Your task to perform on an android device: Search for Italian restaurants on Maps Image 0: 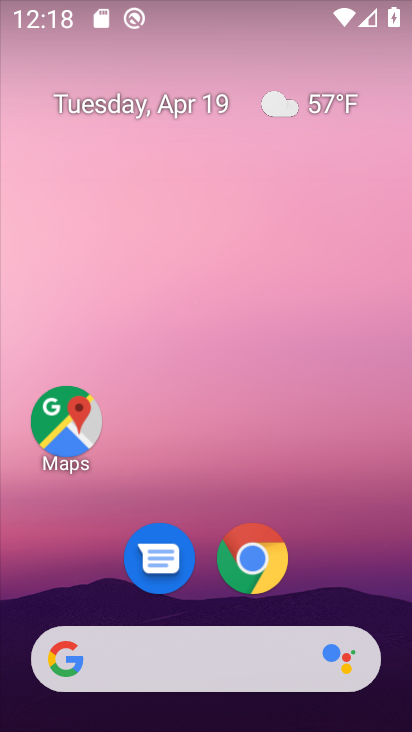
Step 0: click (69, 429)
Your task to perform on an android device: Search for Italian restaurants on Maps Image 1: 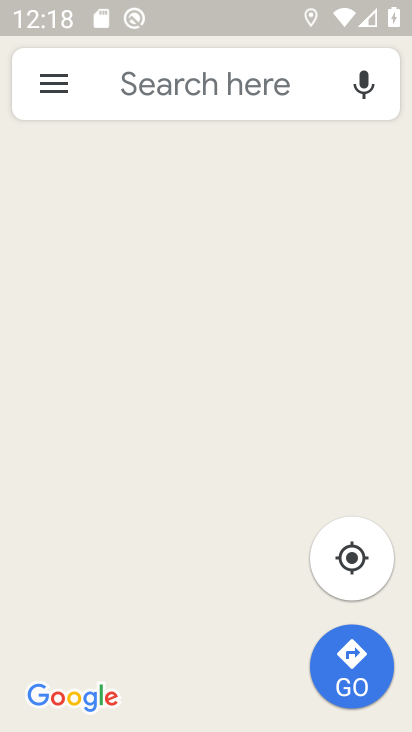
Step 1: click (207, 77)
Your task to perform on an android device: Search for Italian restaurants on Maps Image 2: 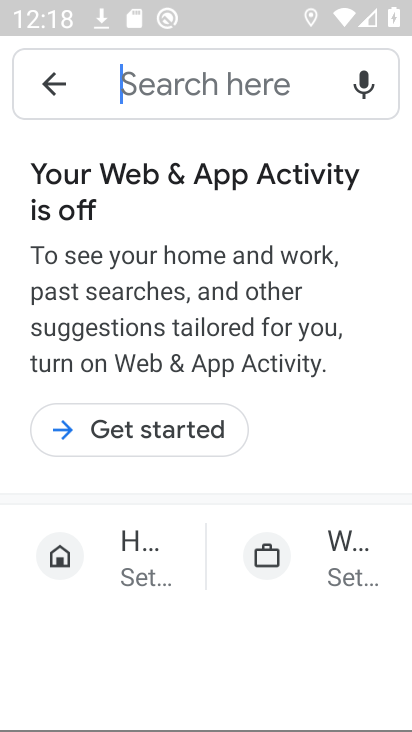
Step 2: click (224, 78)
Your task to perform on an android device: Search for Italian restaurants on Maps Image 3: 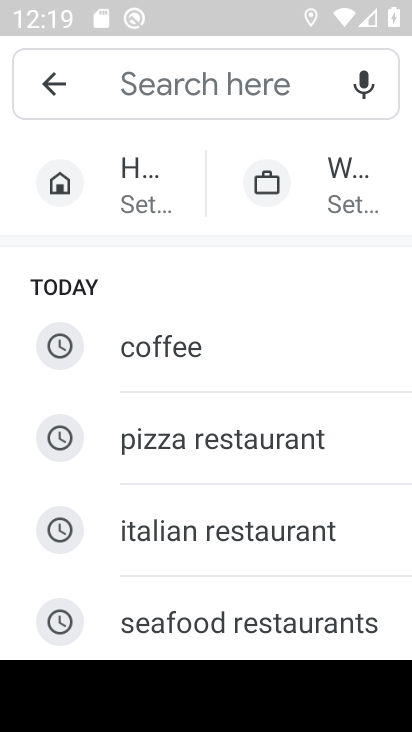
Step 3: click (200, 533)
Your task to perform on an android device: Search for Italian restaurants on Maps Image 4: 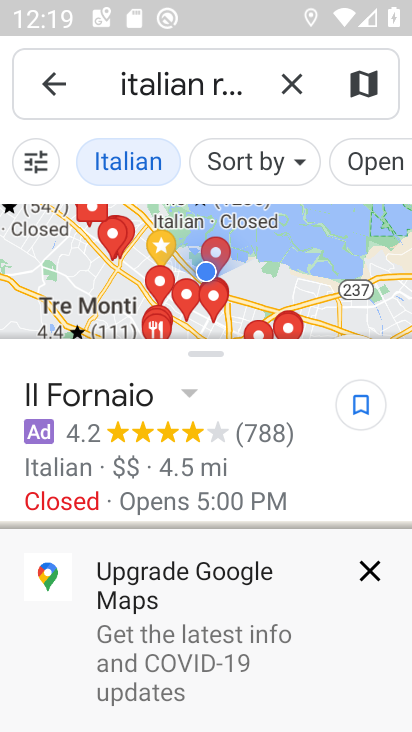
Step 4: task complete